Your task to perform on an android device: allow notifications from all sites in the chrome app Image 0: 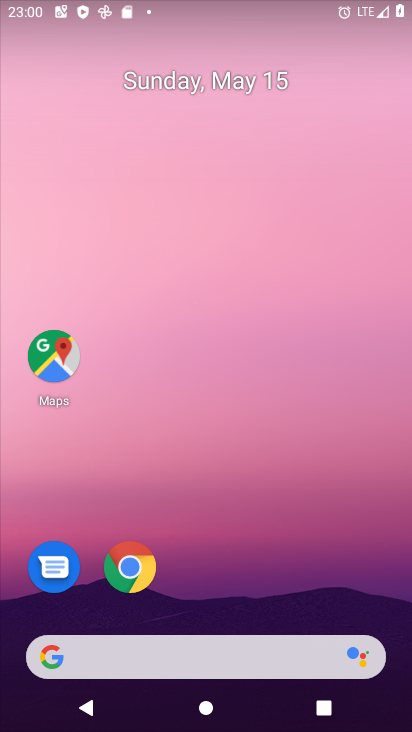
Step 0: click (111, 583)
Your task to perform on an android device: allow notifications from all sites in the chrome app Image 1: 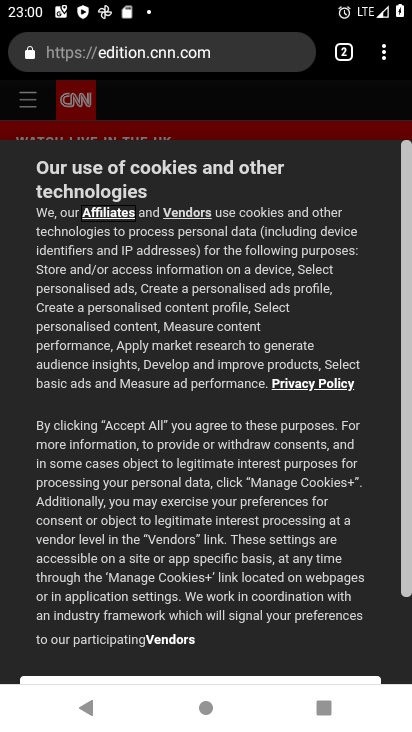
Step 1: click (385, 51)
Your task to perform on an android device: allow notifications from all sites in the chrome app Image 2: 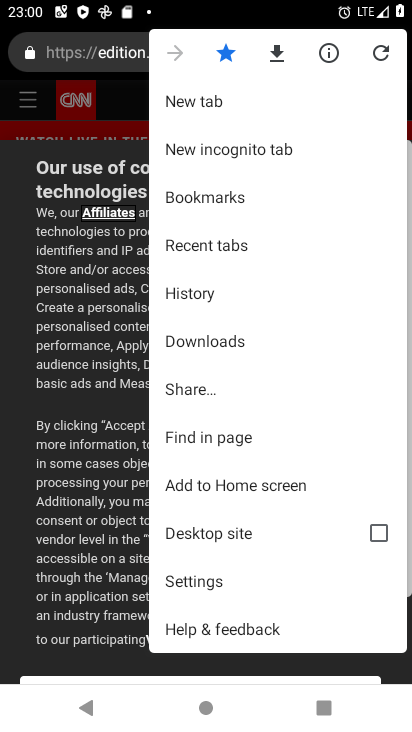
Step 2: click (213, 591)
Your task to perform on an android device: allow notifications from all sites in the chrome app Image 3: 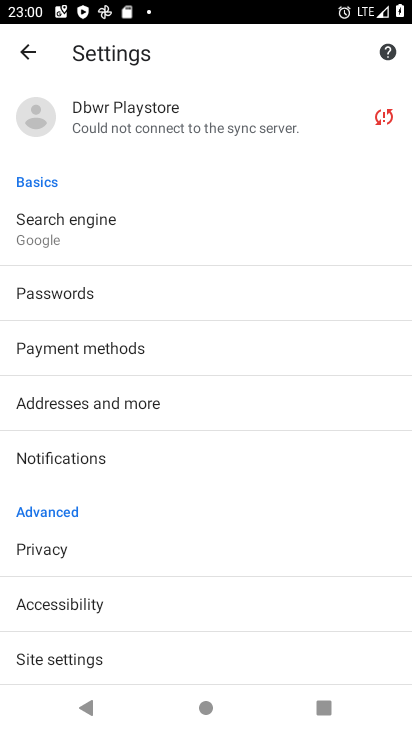
Step 3: click (130, 447)
Your task to perform on an android device: allow notifications from all sites in the chrome app Image 4: 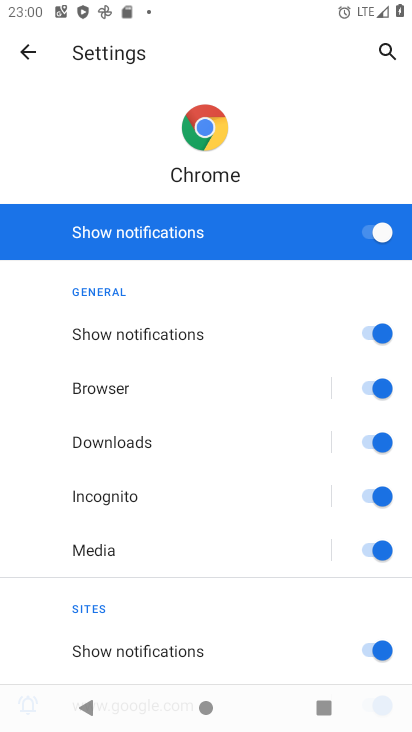
Step 4: task complete